Your task to perform on an android device: Search for pizza restaurants on Maps Image 0: 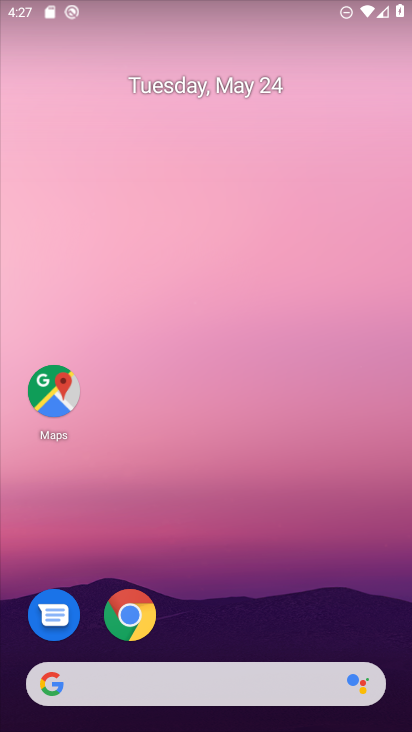
Step 0: click (60, 388)
Your task to perform on an android device: Search for pizza restaurants on Maps Image 1: 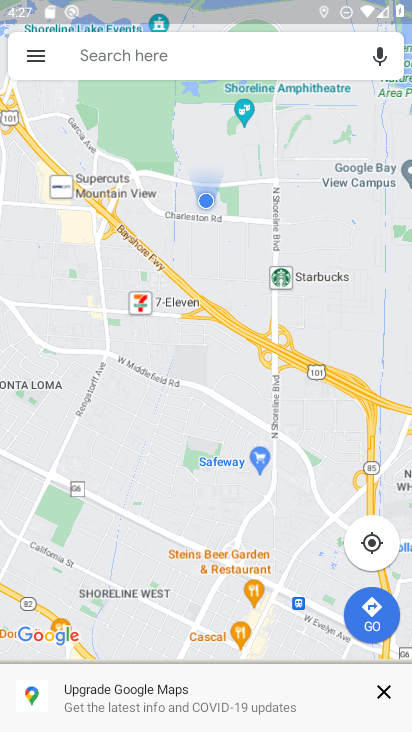
Step 1: click (227, 50)
Your task to perform on an android device: Search for pizza restaurants on Maps Image 2: 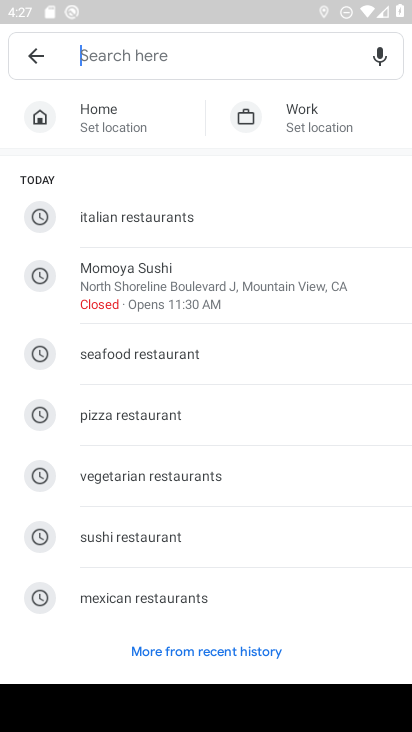
Step 2: click (165, 421)
Your task to perform on an android device: Search for pizza restaurants on Maps Image 3: 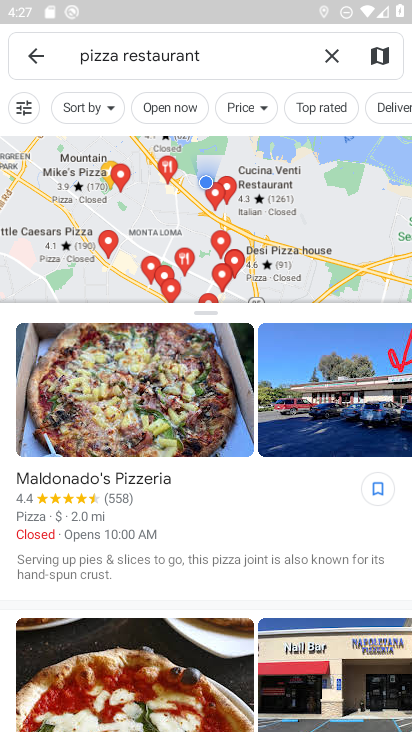
Step 3: task complete